Your task to perform on an android device: open the mobile data screen to see how much data has been used Image 0: 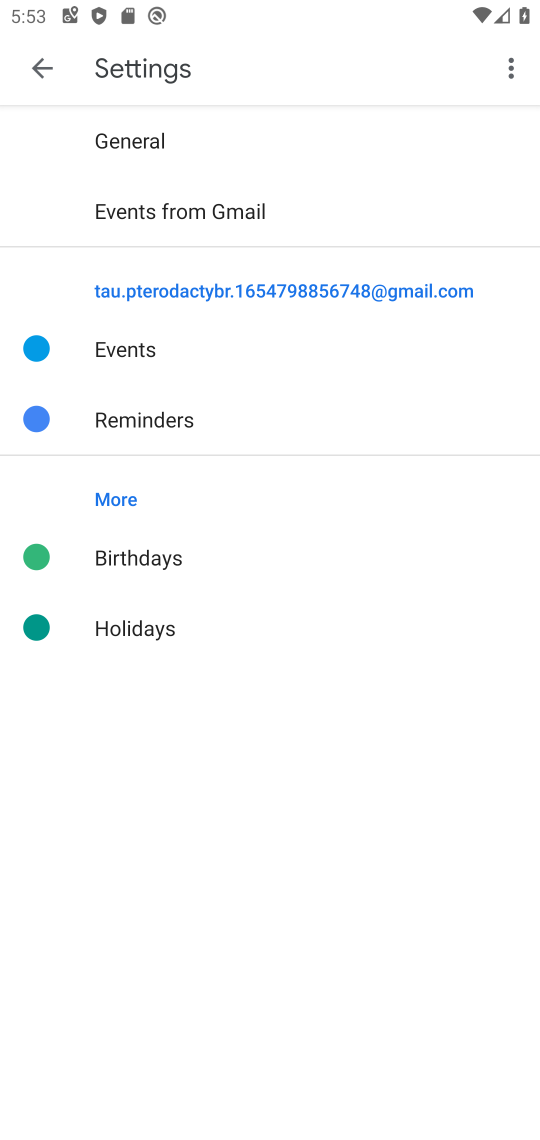
Step 0: press home button
Your task to perform on an android device: open the mobile data screen to see how much data has been used Image 1: 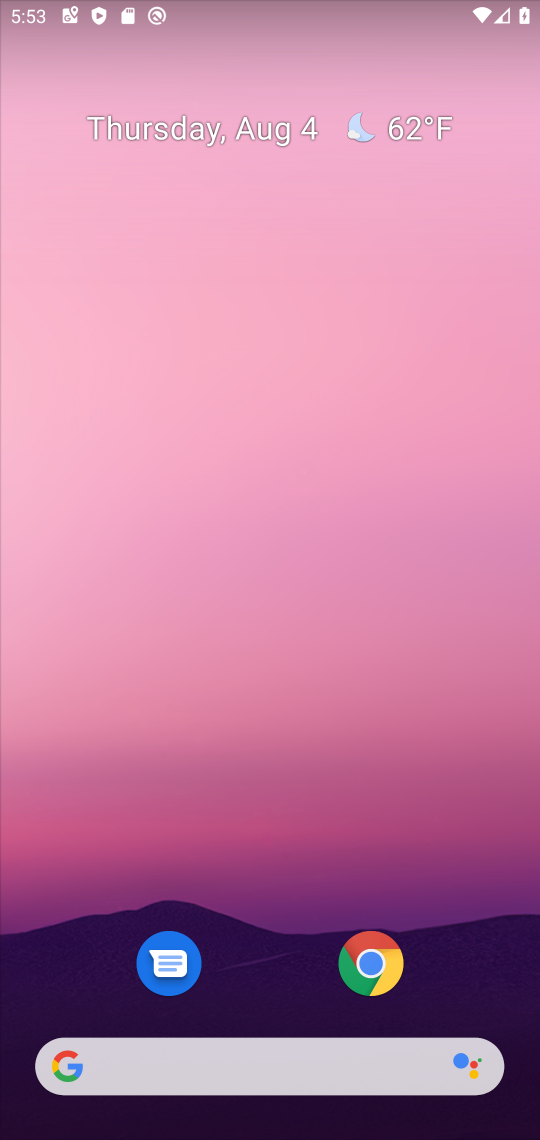
Step 1: drag from (324, 813) to (308, 110)
Your task to perform on an android device: open the mobile data screen to see how much data has been used Image 2: 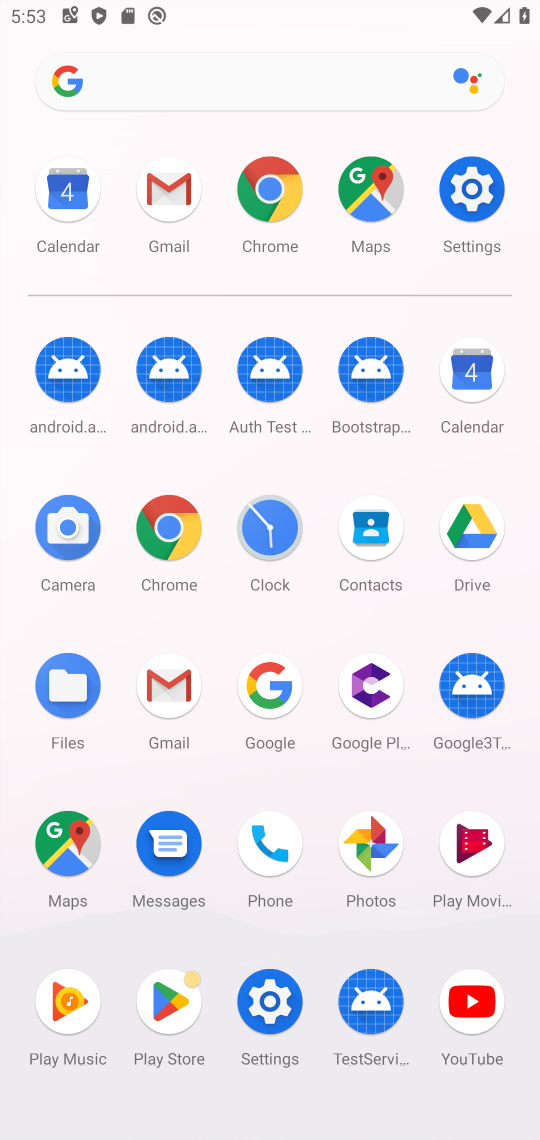
Step 2: click (468, 190)
Your task to perform on an android device: open the mobile data screen to see how much data has been used Image 3: 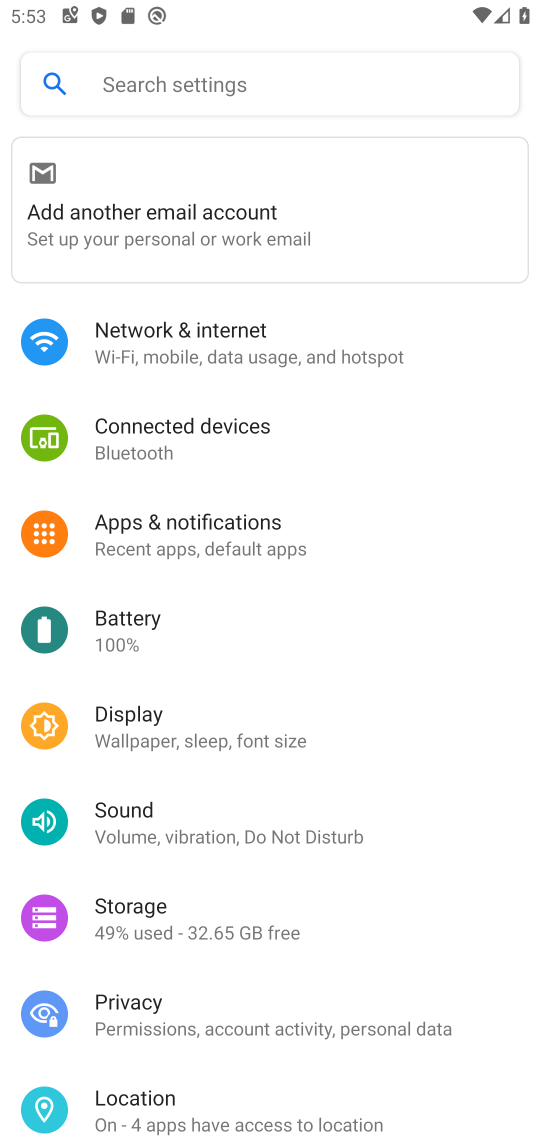
Step 3: click (210, 322)
Your task to perform on an android device: open the mobile data screen to see how much data has been used Image 4: 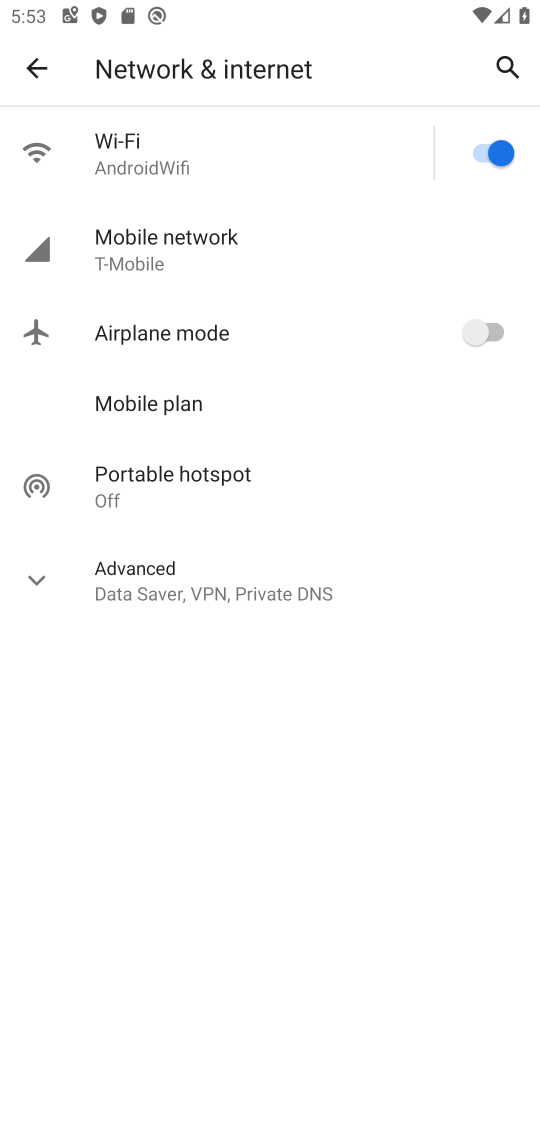
Step 4: click (169, 235)
Your task to perform on an android device: open the mobile data screen to see how much data has been used Image 5: 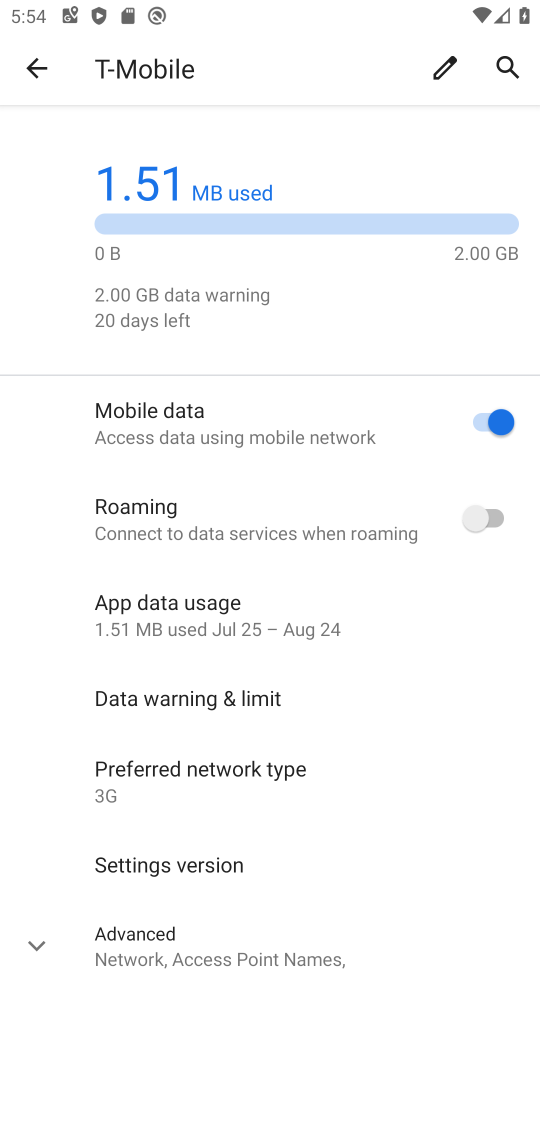
Step 5: task complete